Your task to perform on an android device: change the clock display to digital Image 0: 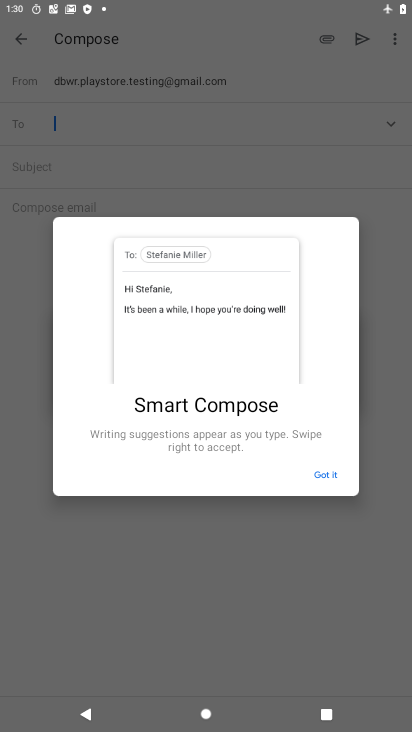
Step 0: press home button
Your task to perform on an android device: change the clock display to digital Image 1: 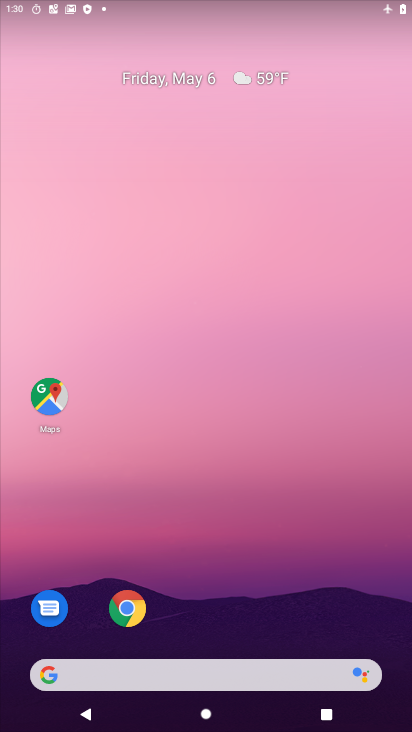
Step 1: drag from (147, 646) to (226, 140)
Your task to perform on an android device: change the clock display to digital Image 2: 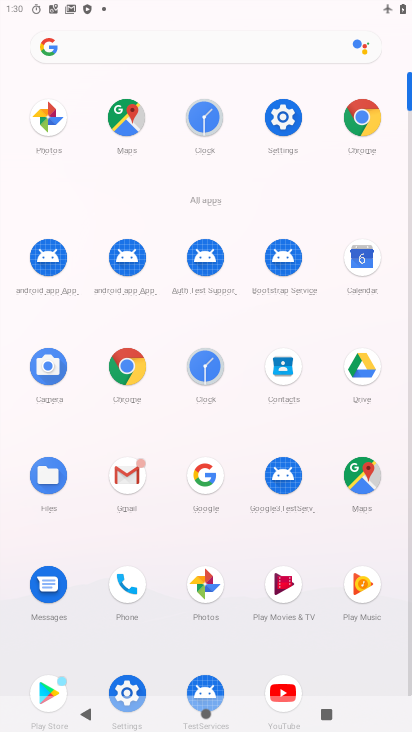
Step 2: click (209, 353)
Your task to perform on an android device: change the clock display to digital Image 3: 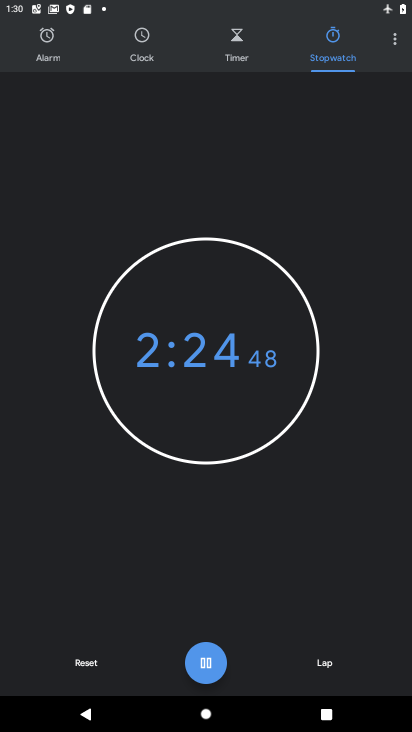
Step 3: click (134, 54)
Your task to perform on an android device: change the clock display to digital Image 4: 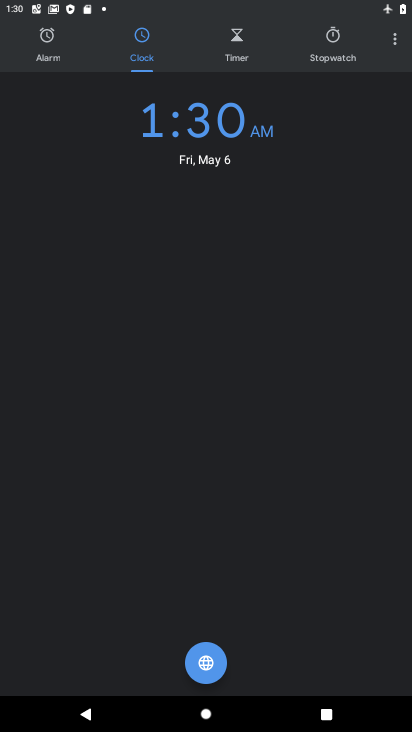
Step 4: click (396, 42)
Your task to perform on an android device: change the clock display to digital Image 5: 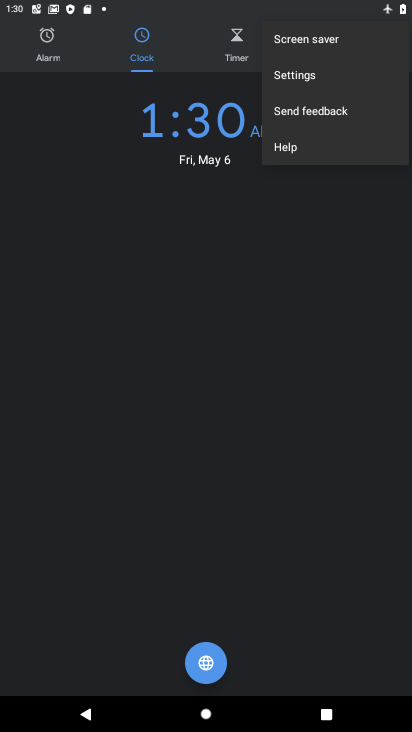
Step 5: click (294, 78)
Your task to perform on an android device: change the clock display to digital Image 6: 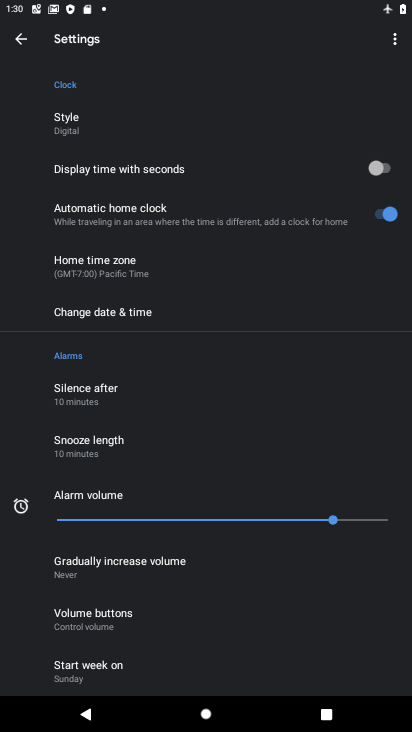
Step 6: drag from (190, 626) to (241, 117)
Your task to perform on an android device: change the clock display to digital Image 7: 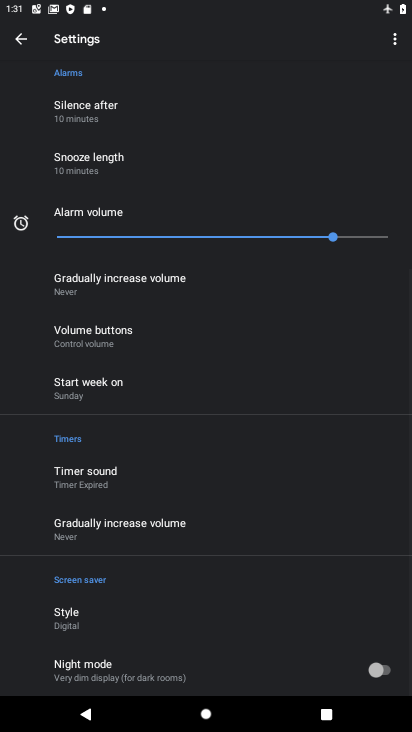
Step 7: drag from (156, 659) to (250, 258)
Your task to perform on an android device: change the clock display to digital Image 8: 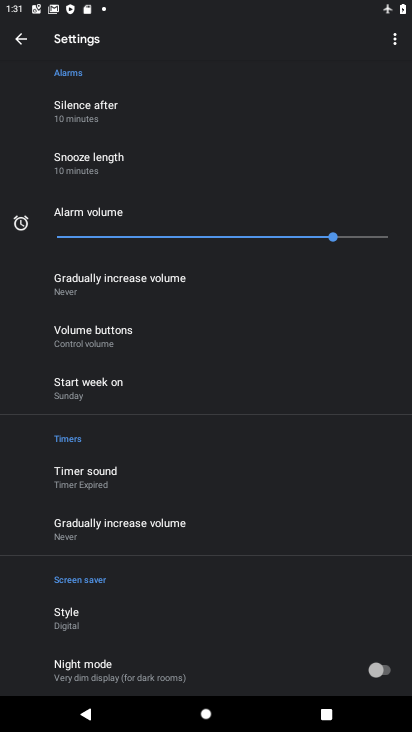
Step 8: drag from (209, 148) to (218, 729)
Your task to perform on an android device: change the clock display to digital Image 9: 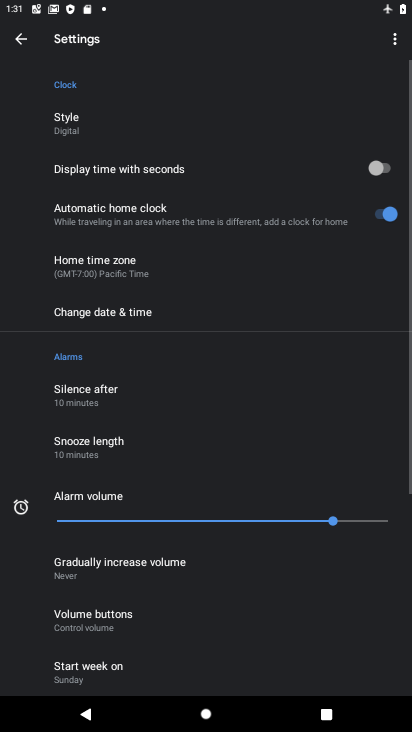
Step 9: drag from (209, 144) to (235, 545)
Your task to perform on an android device: change the clock display to digital Image 10: 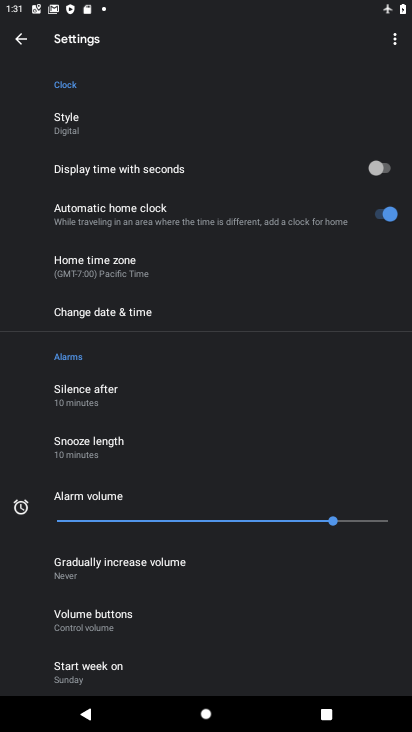
Step 10: click (112, 125)
Your task to perform on an android device: change the clock display to digital Image 11: 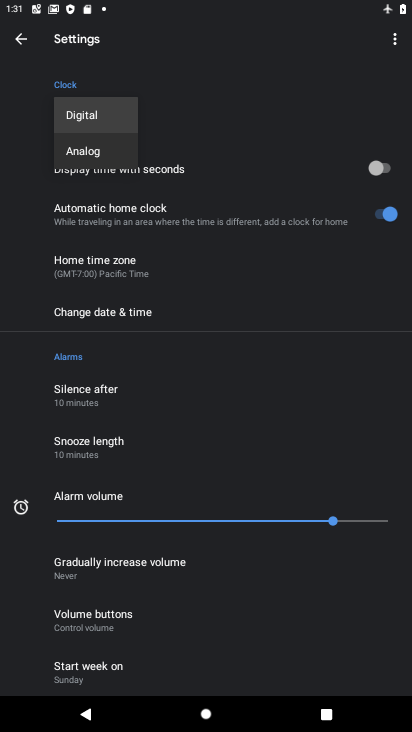
Step 11: task complete